Your task to perform on an android device: turn on the 24-hour format for clock Image 0: 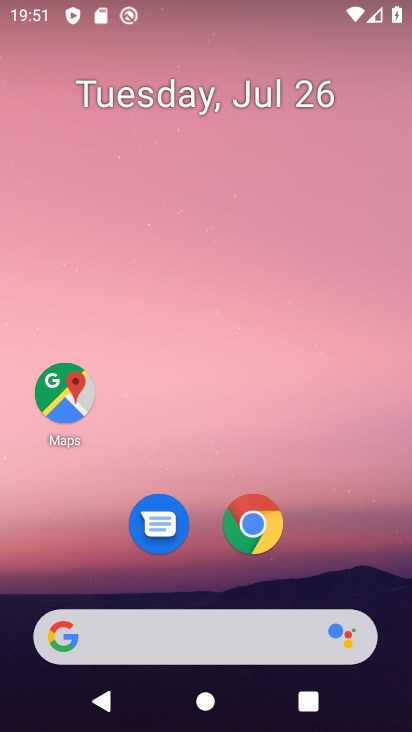
Step 0: press home button
Your task to perform on an android device: turn on the 24-hour format for clock Image 1: 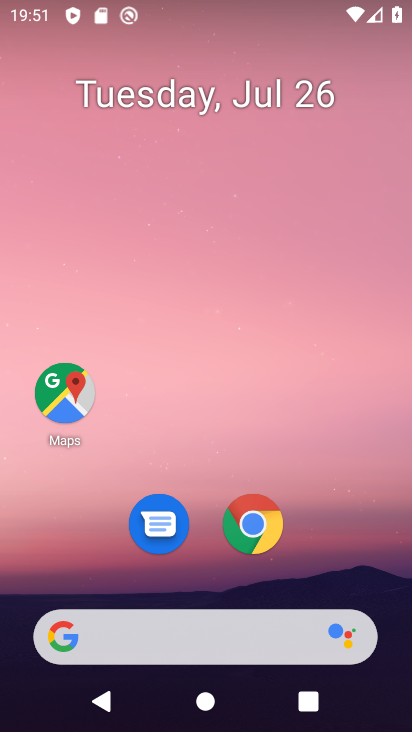
Step 1: drag from (201, 636) to (311, 139)
Your task to perform on an android device: turn on the 24-hour format for clock Image 2: 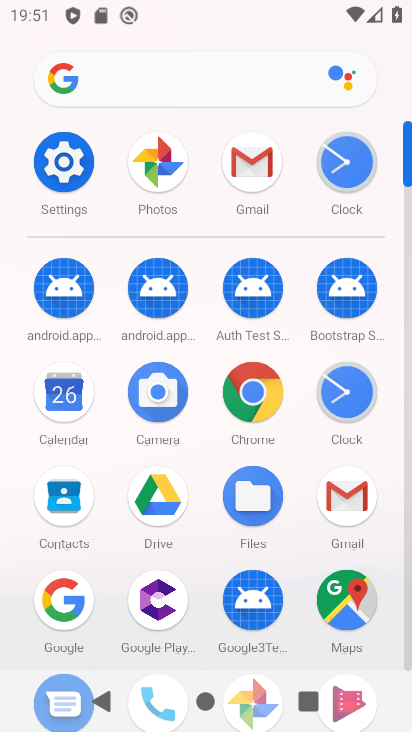
Step 2: click (338, 400)
Your task to perform on an android device: turn on the 24-hour format for clock Image 3: 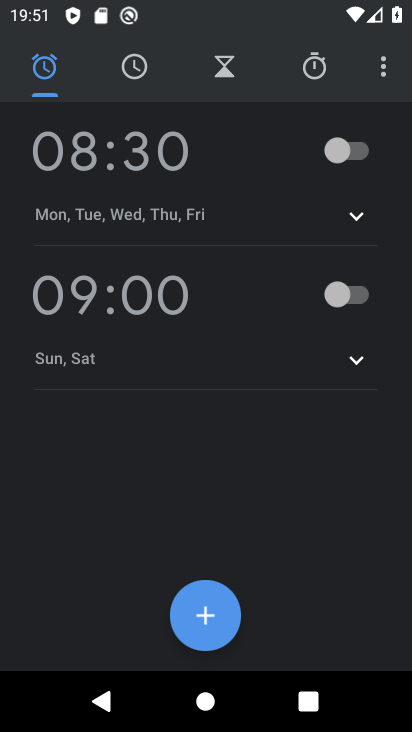
Step 3: click (388, 65)
Your task to perform on an android device: turn on the 24-hour format for clock Image 4: 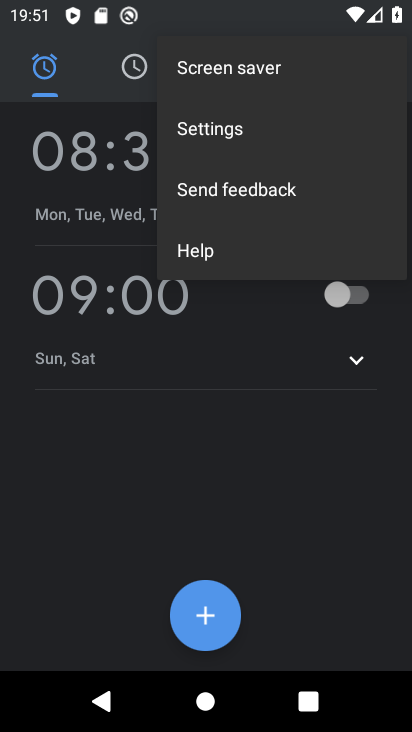
Step 4: click (276, 118)
Your task to perform on an android device: turn on the 24-hour format for clock Image 5: 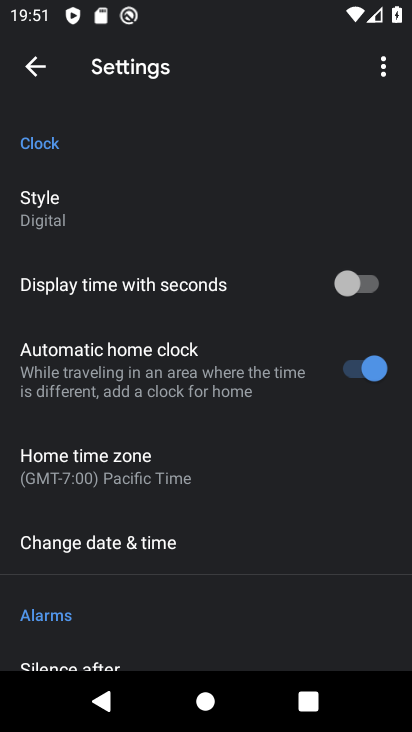
Step 5: drag from (235, 527) to (286, 180)
Your task to perform on an android device: turn on the 24-hour format for clock Image 6: 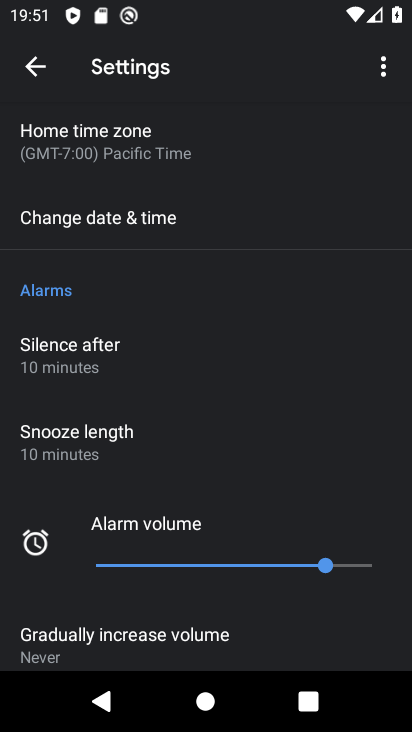
Step 6: click (70, 222)
Your task to perform on an android device: turn on the 24-hour format for clock Image 7: 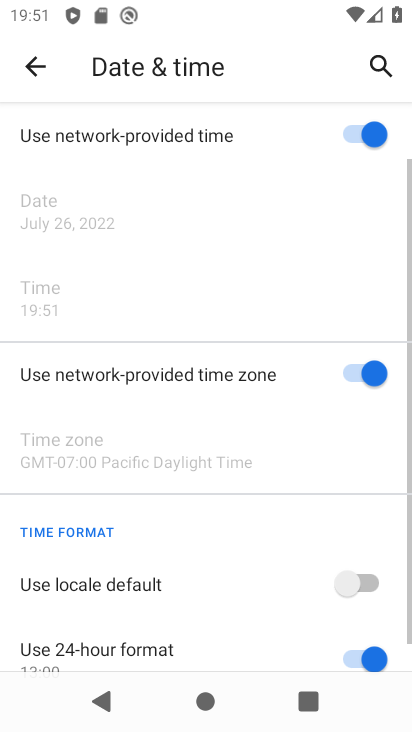
Step 7: task complete